Your task to perform on an android device: Go to internet settings Image 0: 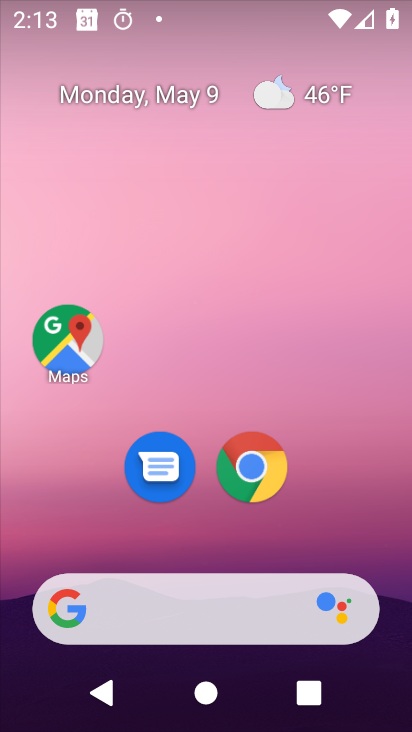
Step 0: drag from (341, 530) to (340, 37)
Your task to perform on an android device: Go to internet settings Image 1: 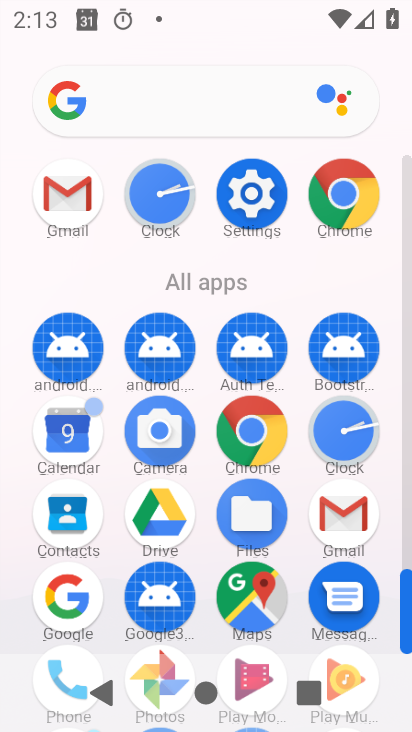
Step 1: click (258, 185)
Your task to perform on an android device: Go to internet settings Image 2: 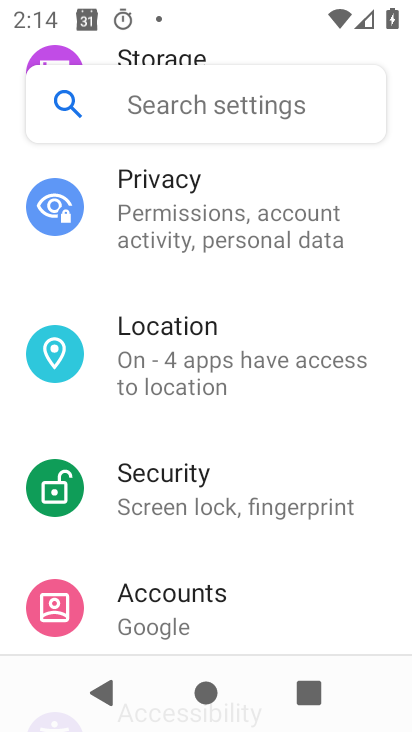
Step 2: drag from (272, 218) to (318, 657)
Your task to perform on an android device: Go to internet settings Image 3: 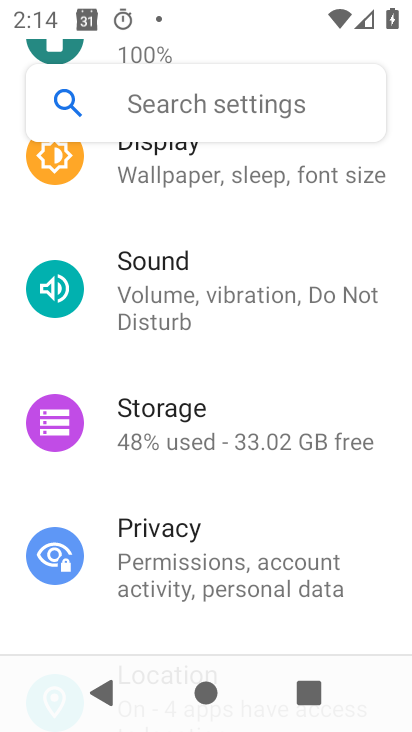
Step 3: drag from (246, 260) to (294, 704)
Your task to perform on an android device: Go to internet settings Image 4: 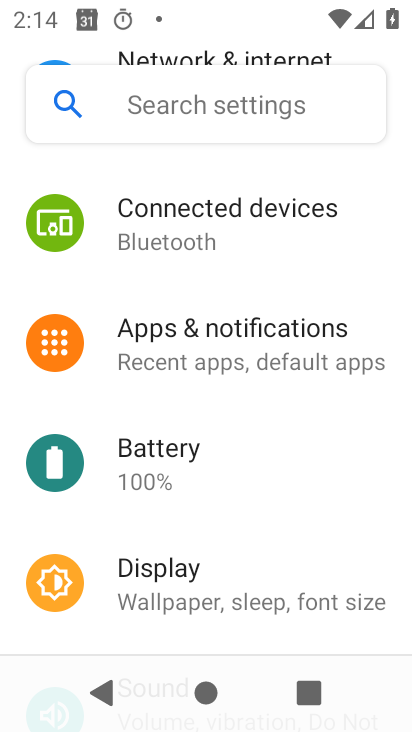
Step 4: drag from (263, 230) to (281, 692)
Your task to perform on an android device: Go to internet settings Image 5: 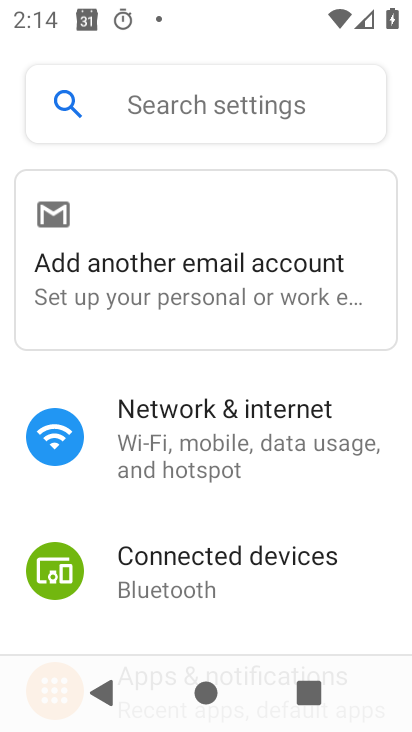
Step 5: click (259, 438)
Your task to perform on an android device: Go to internet settings Image 6: 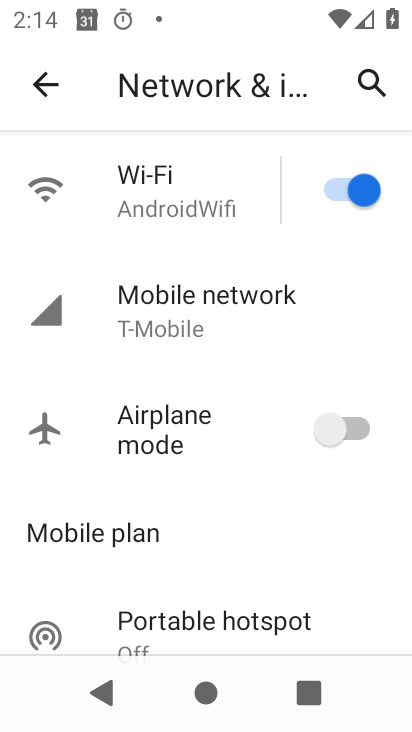
Step 6: task complete